Your task to perform on an android device: find photos in the google photos app Image 0: 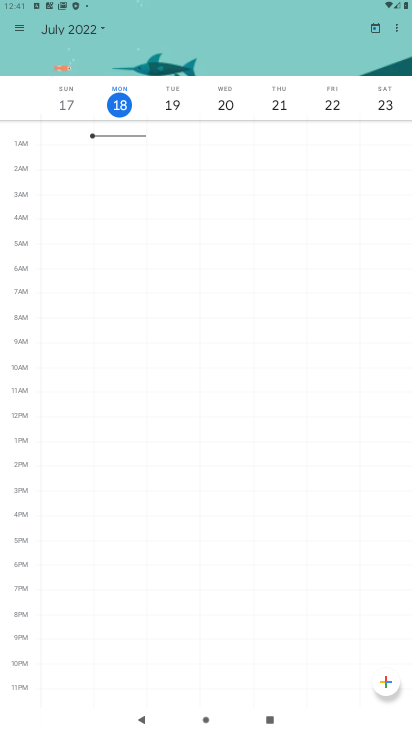
Step 0: press home button
Your task to perform on an android device: find photos in the google photos app Image 1: 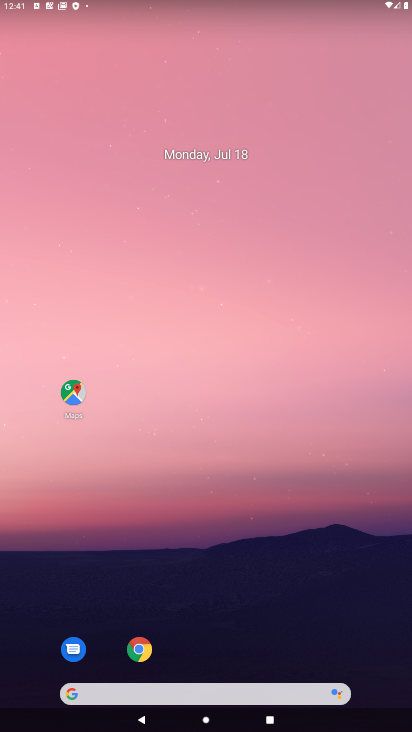
Step 1: drag from (396, 669) to (333, 84)
Your task to perform on an android device: find photos in the google photos app Image 2: 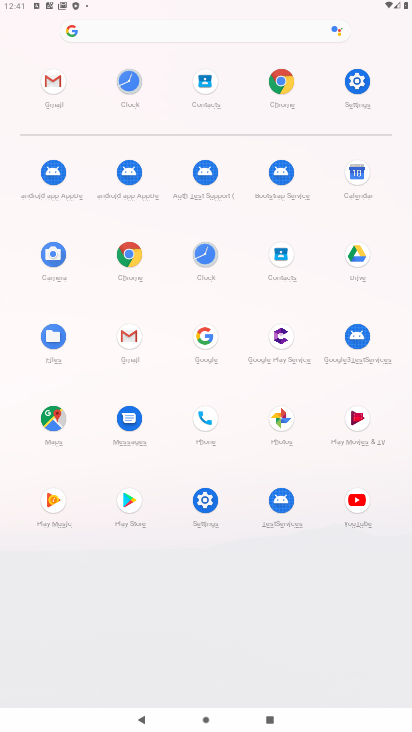
Step 2: click (281, 419)
Your task to perform on an android device: find photos in the google photos app Image 3: 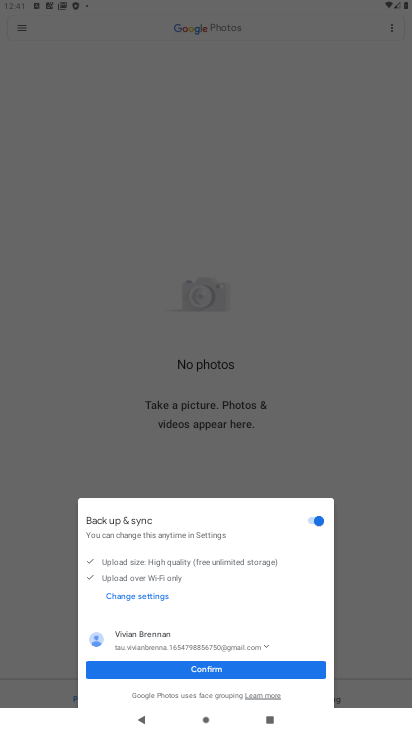
Step 3: click (204, 671)
Your task to perform on an android device: find photos in the google photos app Image 4: 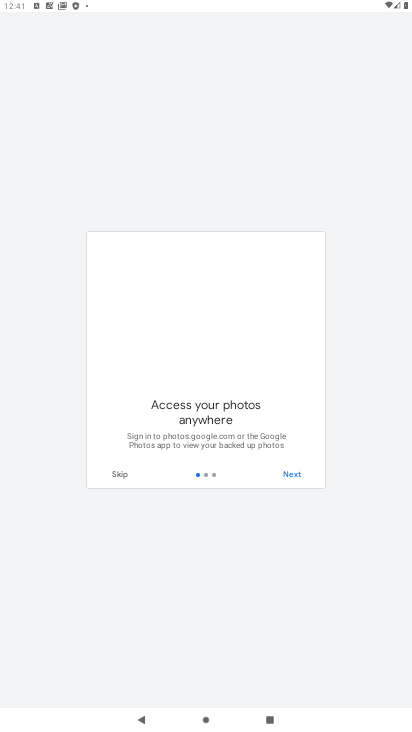
Step 4: click (109, 474)
Your task to perform on an android device: find photos in the google photos app Image 5: 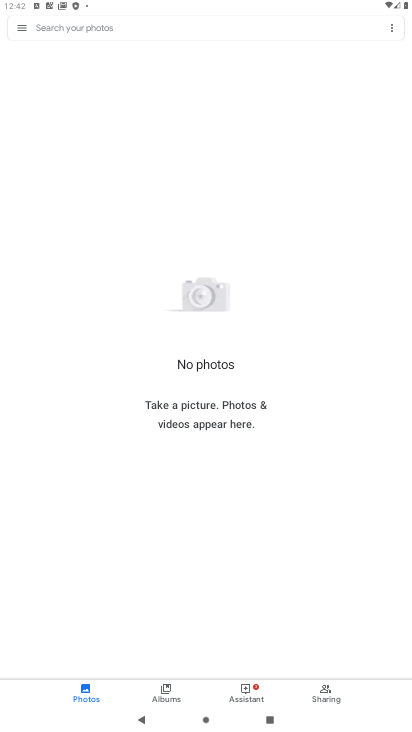
Step 5: task complete